Your task to perform on an android device: What's the weather? Image 0: 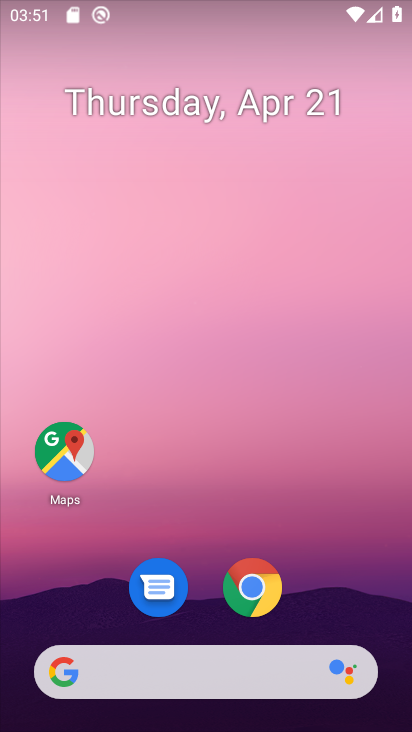
Step 0: click (233, 676)
Your task to perform on an android device: What's the weather? Image 1: 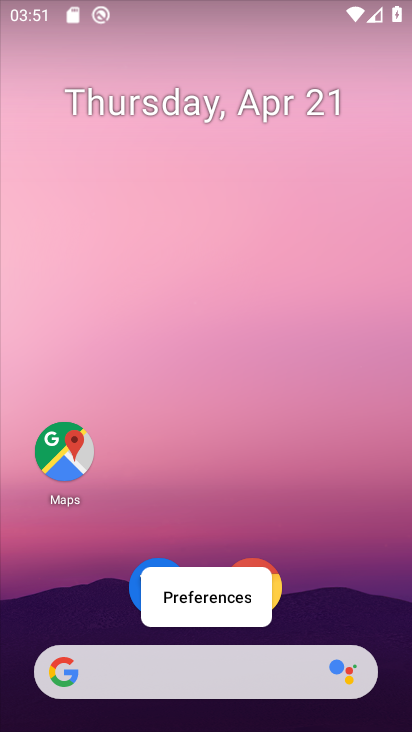
Step 1: click (287, 662)
Your task to perform on an android device: What's the weather? Image 2: 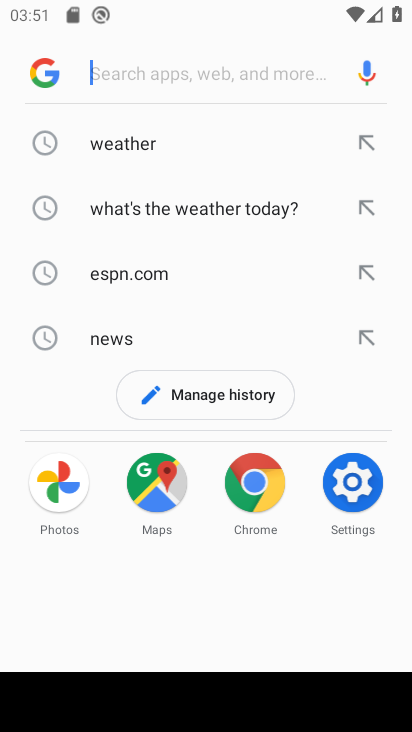
Step 2: click (139, 144)
Your task to perform on an android device: What's the weather? Image 3: 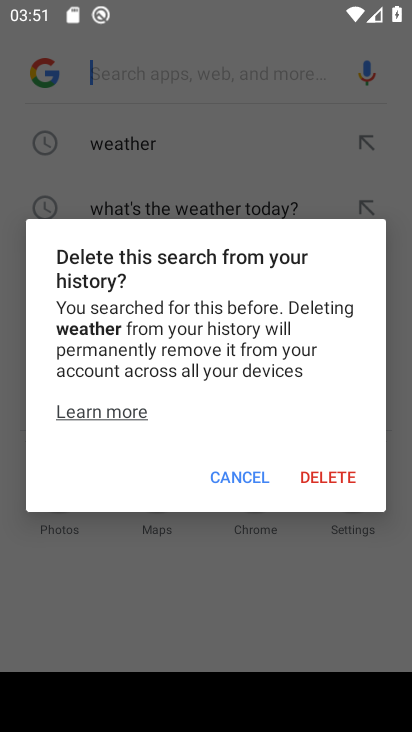
Step 3: click (253, 470)
Your task to perform on an android device: What's the weather? Image 4: 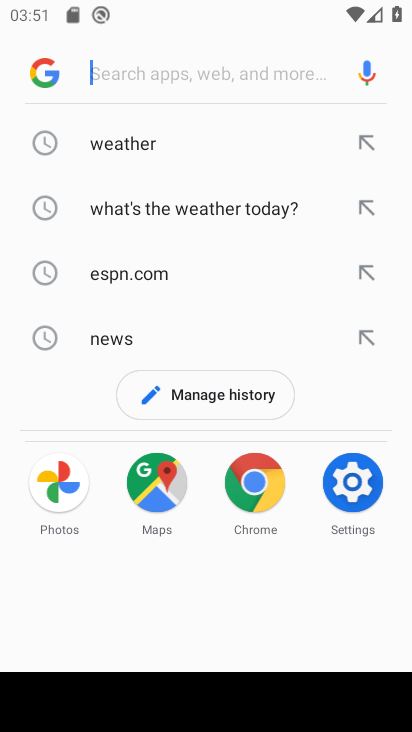
Step 4: click (128, 158)
Your task to perform on an android device: What's the weather? Image 5: 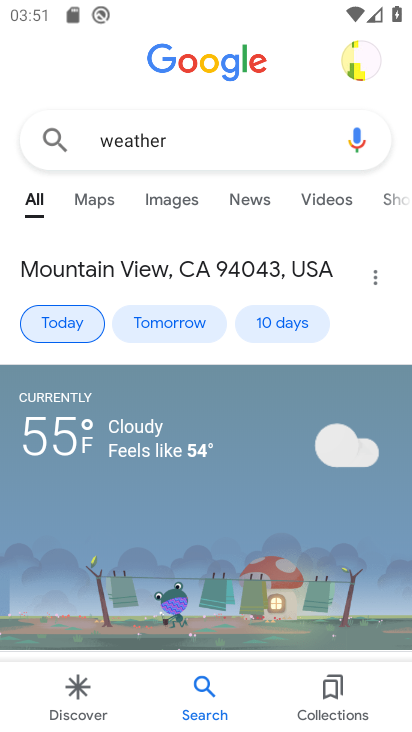
Step 5: task complete